Your task to perform on an android device: Open Yahoo.com Image 0: 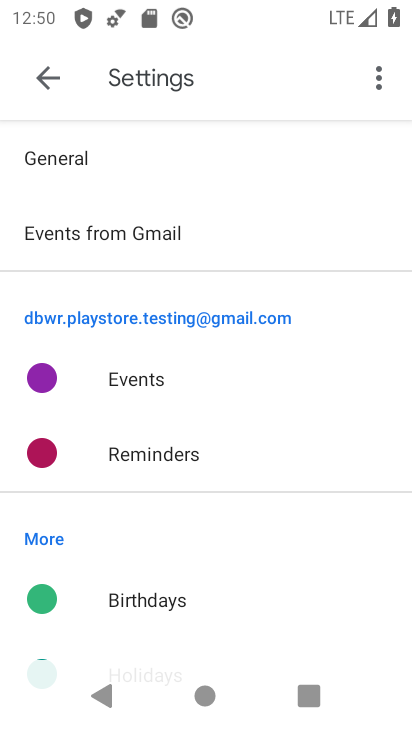
Step 0: click (245, 482)
Your task to perform on an android device: Open Yahoo.com Image 1: 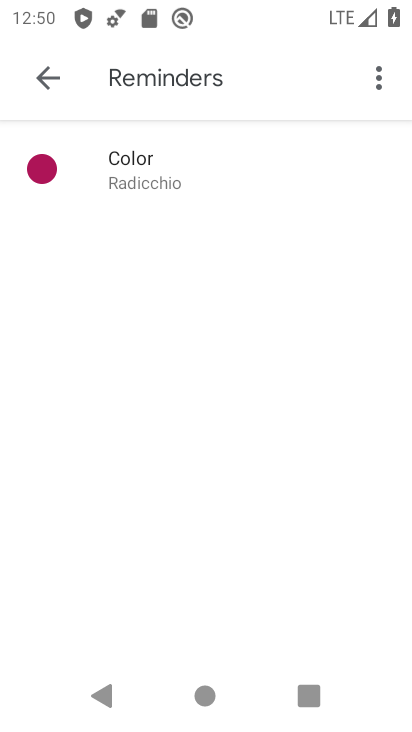
Step 1: press home button
Your task to perform on an android device: Open Yahoo.com Image 2: 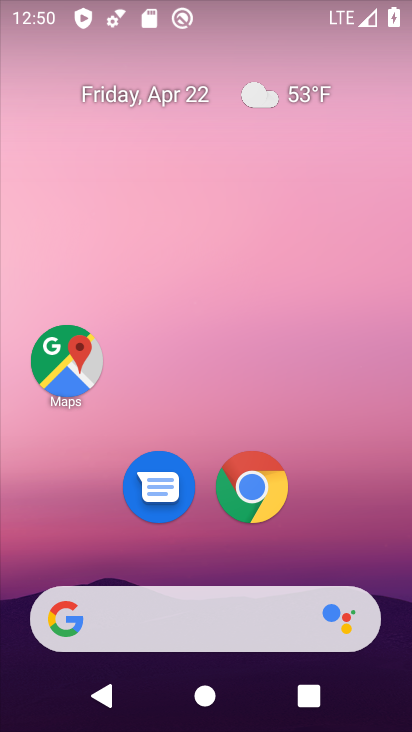
Step 2: click (256, 491)
Your task to perform on an android device: Open Yahoo.com Image 3: 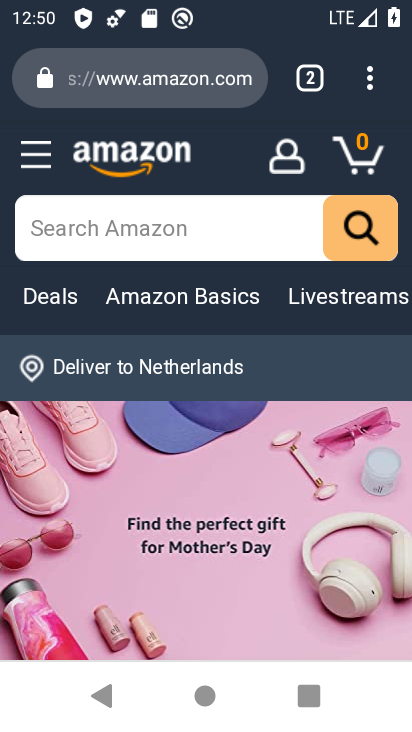
Step 3: click (323, 75)
Your task to perform on an android device: Open Yahoo.com Image 4: 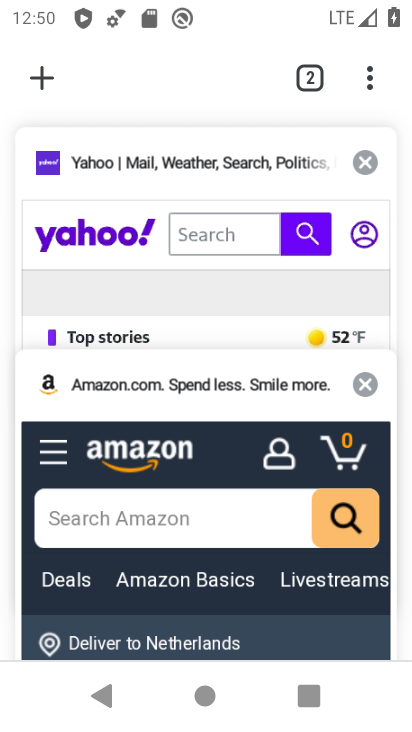
Step 4: click (123, 202)
Your task to perform on an android device: Open Yahoo.com Image 5: 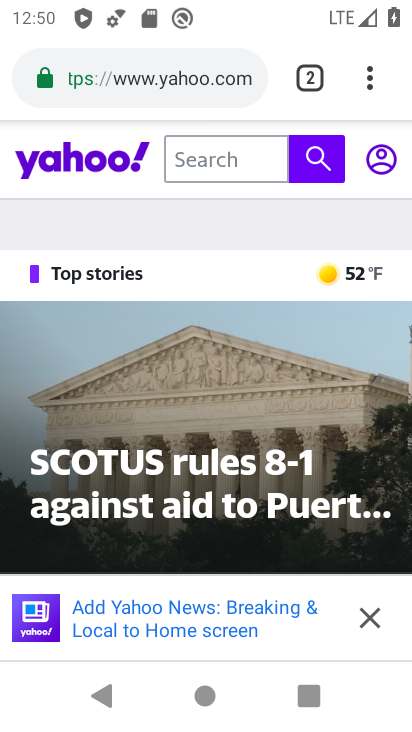
Step 5: task complete